Your task to perform on an android device: add a label to a message in the gmail app Image 0: 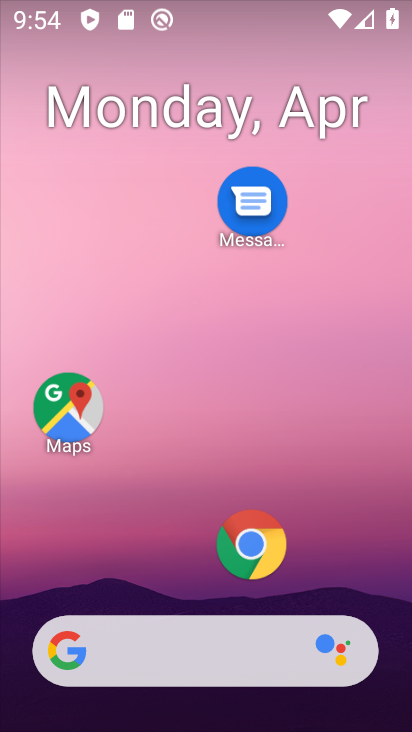
Step 0: drag from (201, 602) to (266, 45)
Your task to perform on an android device: add a label to a message in the gmail app Image 1: 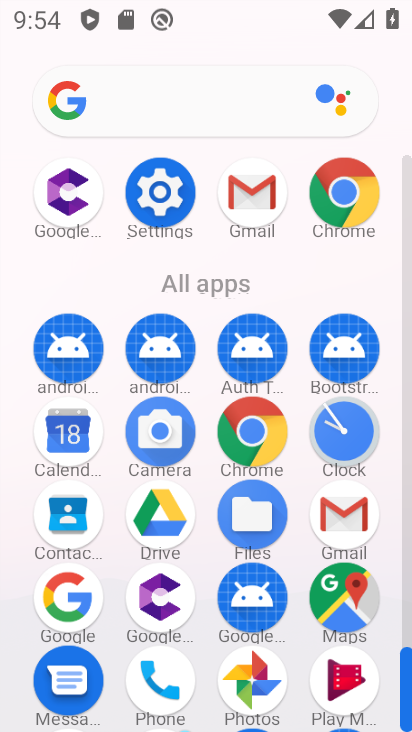
Step 1: click (344, 508)
Your task to perform on an android device: add a label to a message in the gmail app Image 2: 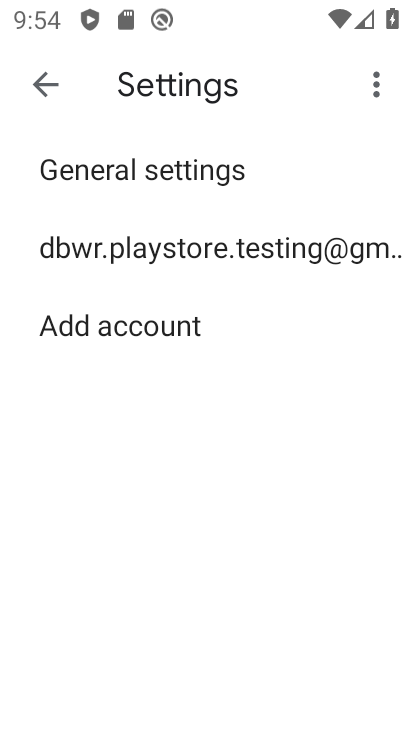
Step 2: click (46, 88)
Your task to perform on an android device: add a label to a message in the gmail app Image 3: 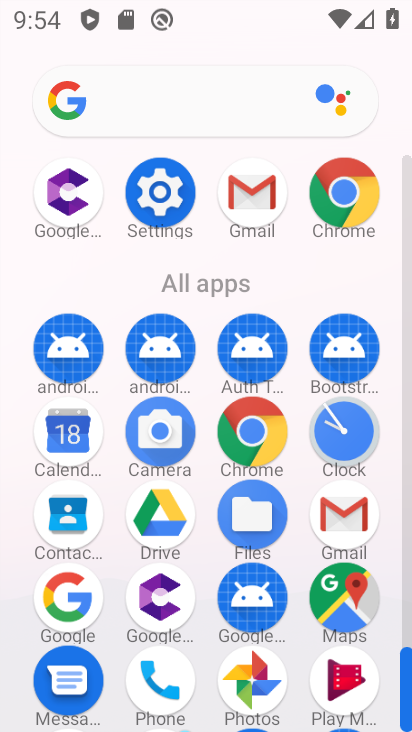
Step 3: click (343, 500)
Your task to perform on an android device: add a label to a message in the gmail app Image 4: 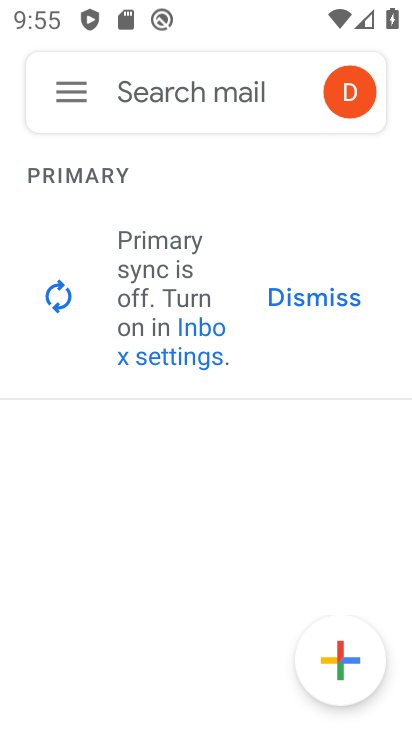
Step 4: click (76, 91)
Your task to perform on an android device: add a label to a message in the gmail app Image 5: 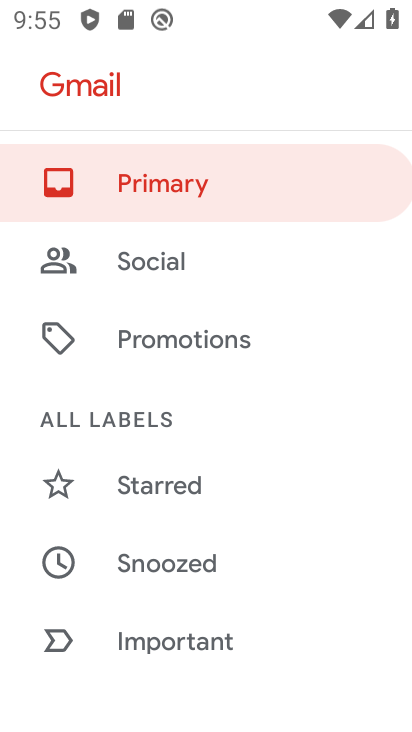
Step 5: drag from (139, 617) to (140, 168)
Your task to perform on an android device: add a label to a message in the gmail app Image 6: 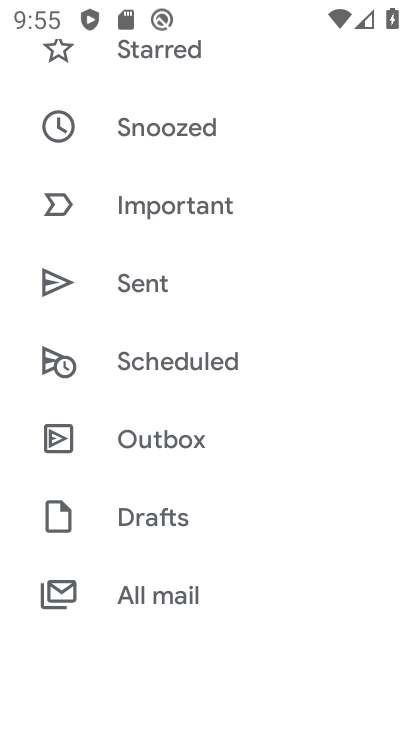
Step 6: click (170, 595)
Your task to perform on an android device: add a label to a message in the gmail app Image 7: 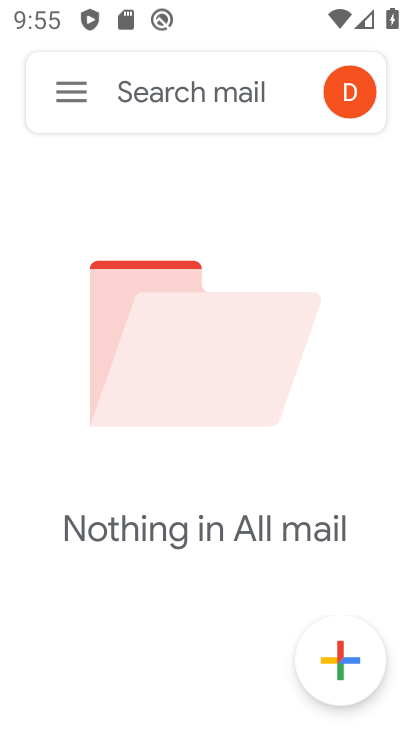
Step 7: task complete